Your task to perform on an android device: Turn off the flashlight Image 0: 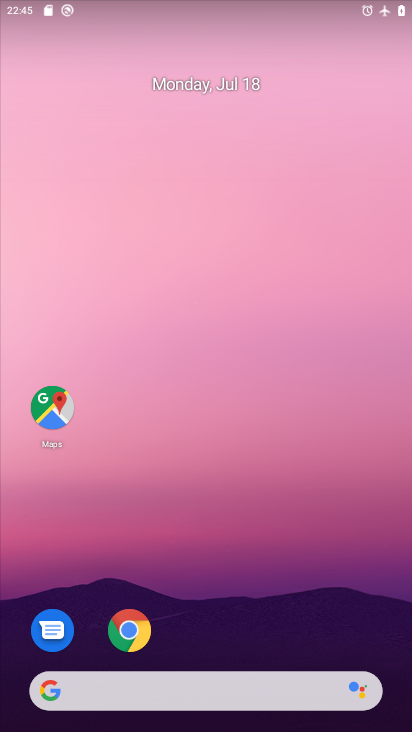
Step 0: drag from (271, 641) to (271, 297)
Your task to perform on an android device: Turn off the flashlight Image 1: 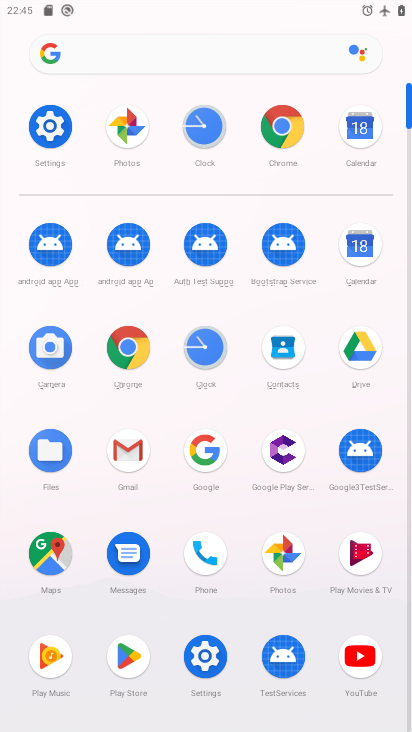
Step 1: click (39, 140)
Your task to perform on an android device: Turn off the flashlight Image 2: 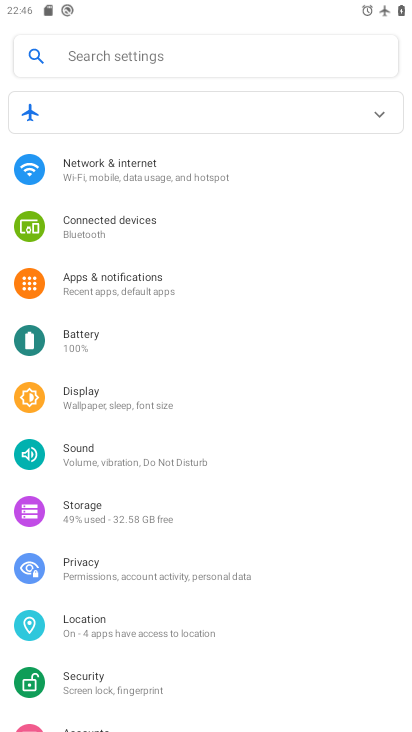
Step 2: task complete